Your task to perform on an android device: Is it going to rain tomorrow? Image 0: 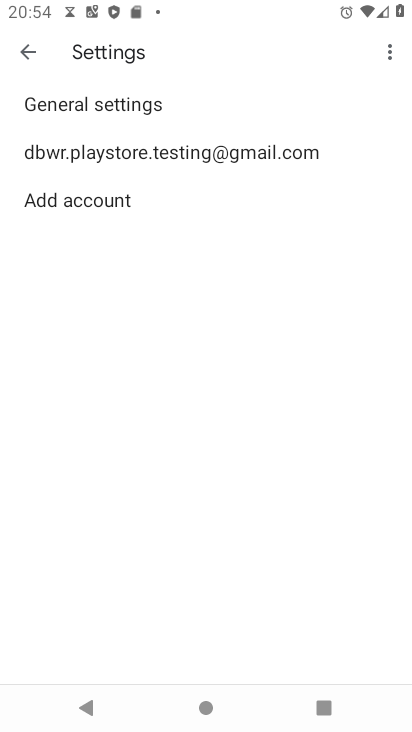
Step 0: press home button
Your task to perform on an android device: Is it going to rain tomorrow? Image 1: 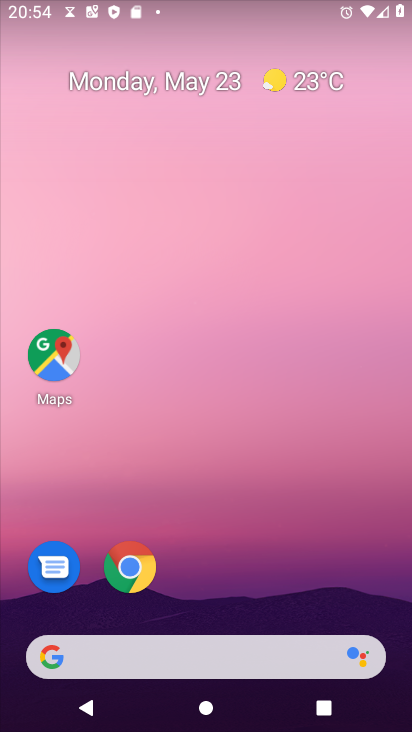
Step 1: click (135, 562)
Your task to perform on an android device: Is it going to rain tomorrow? Image 2: 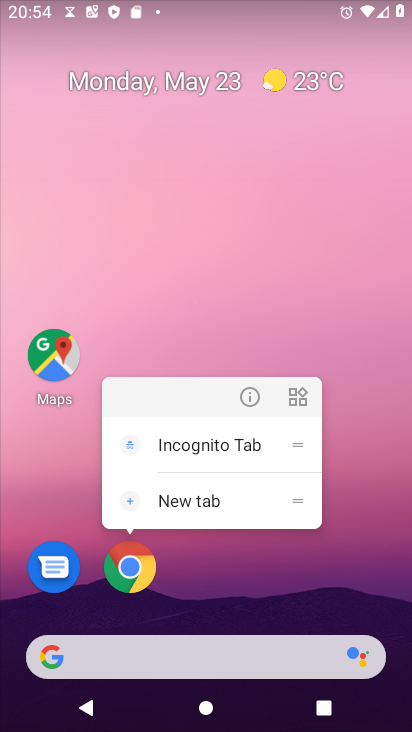
Step 2: click (135, 562)
Your task to perform on an android device: Is it going to rain tomorrow? Image 3: 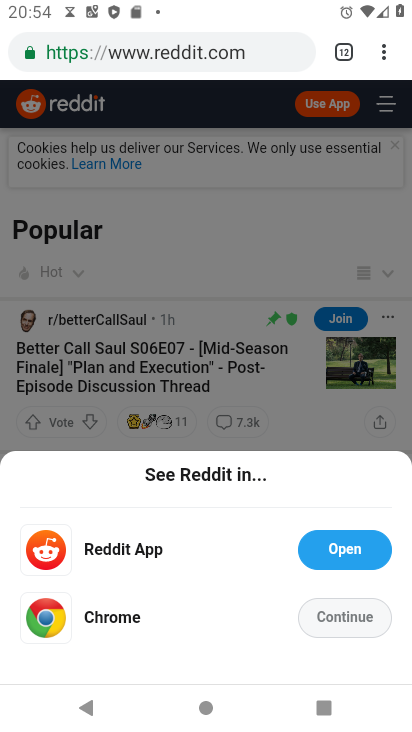
Step 3: click (388, 53)
Your task to perform on an android device: Is it going to rain tomorrow? Image 4: 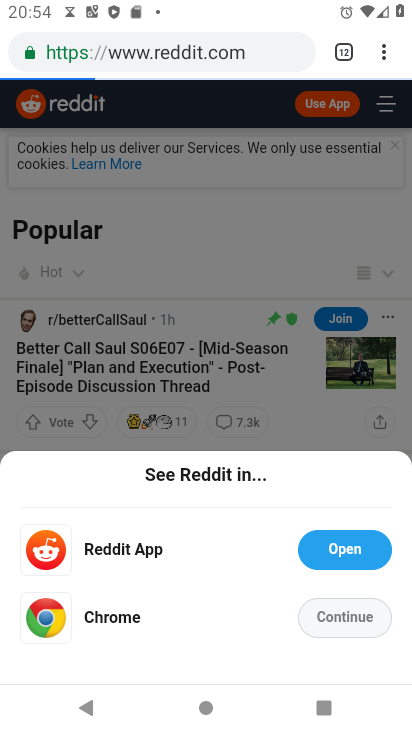
Step 4: click (383, 57)
Your task to perform on an android device: Is it going to rain tomorrow? Image 5: 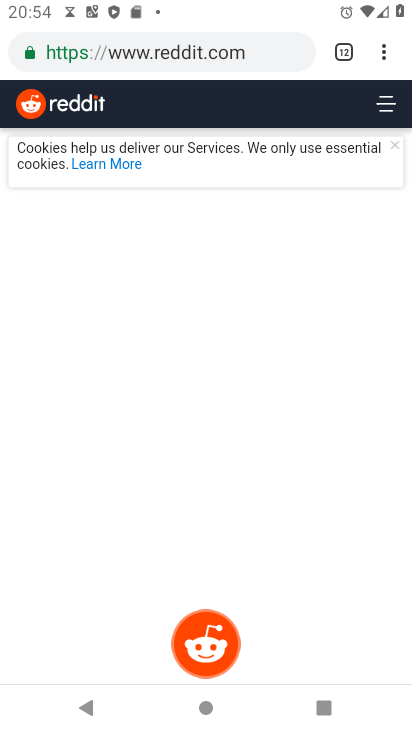
Step 5: click (379, 51)
Your task to perform on an android device: Is it going to rain tomorrow? Image 6: 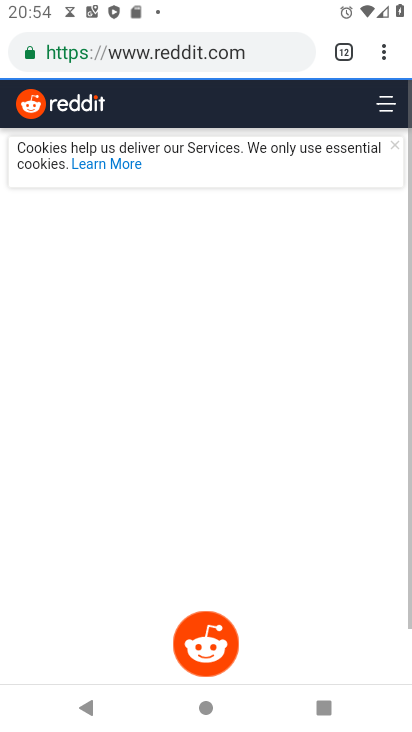
Step 6: click (379, 51)
Your task to perform on an android device: Is it going to rain tomorrow? Image 7: 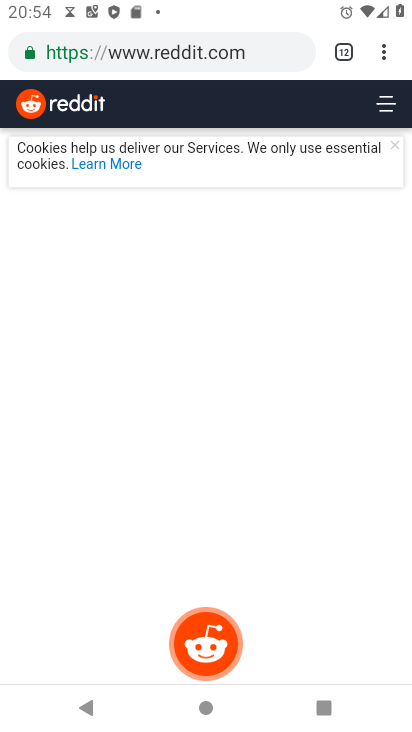
Step 7: click (379, 44)
Your task to perform on an android device: Is it going to rain tomorrow? Image 8: 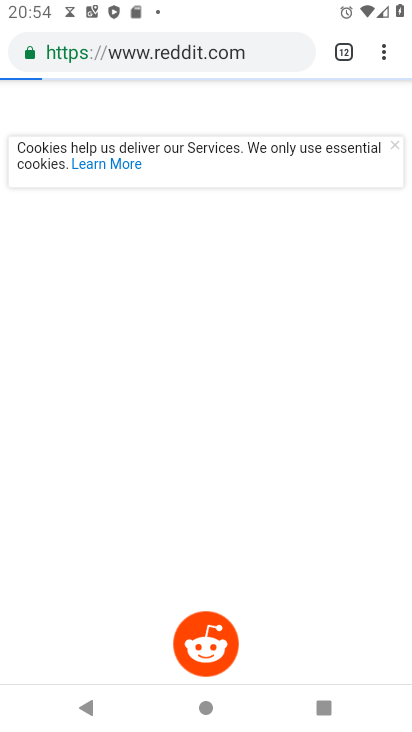
Step 8: click (379, 44)
Your task to perform on an android device: Is it going to rain tomorrow? Image 9: 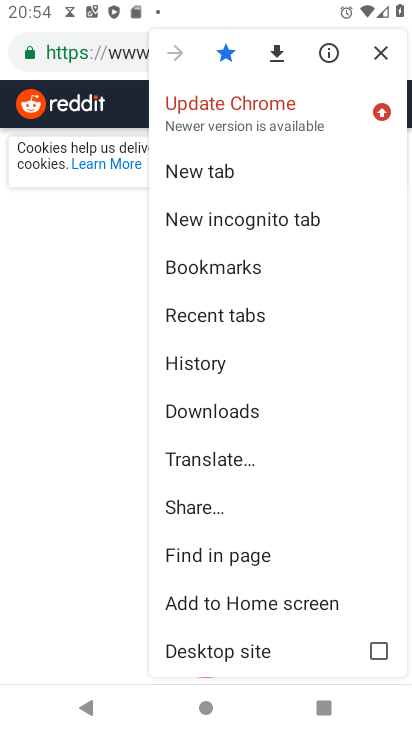
Step 9: click (212, 180)
Your task to perform on an android device: Is it going to rain tomorrow? Image 10: 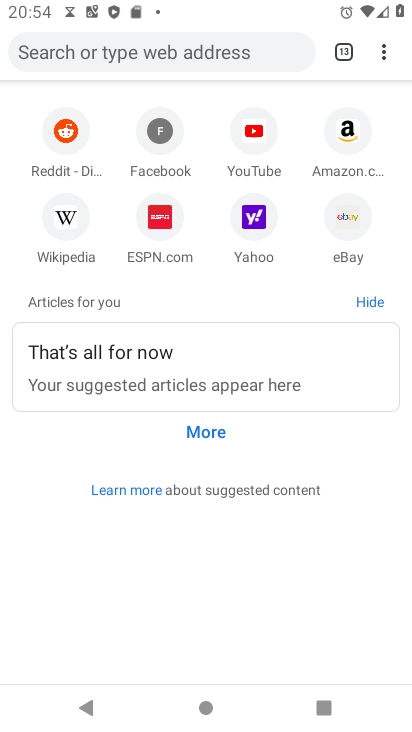
Step 10: click (131, 45)
Your task to perform on an android device: Is it going to rain tomorrow? Image 11: 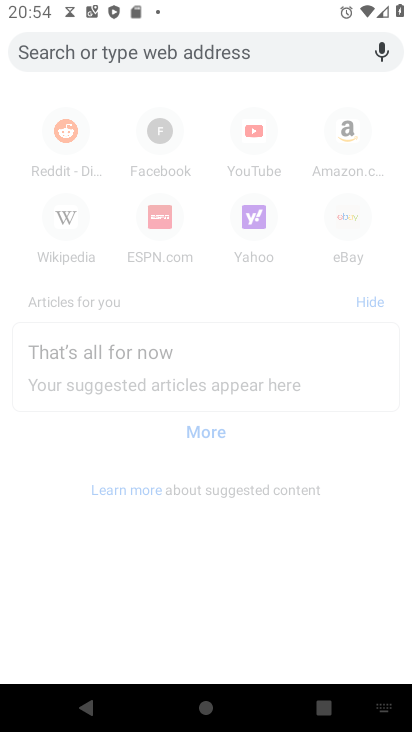
Step 11: type "Is it going to rain tomorrow?"
Your task to perform on an android device: Is it going to rain tomorrow? Image 12: 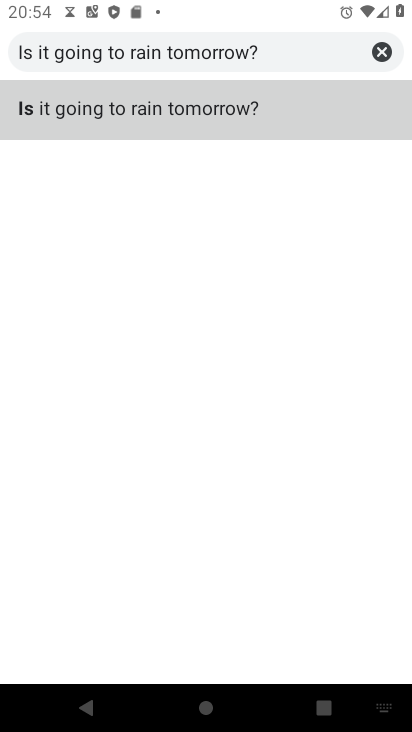
Step 12: click (323, 97)
Your task to perform on an android device: Is it going to rain tomorrow? Image 13: 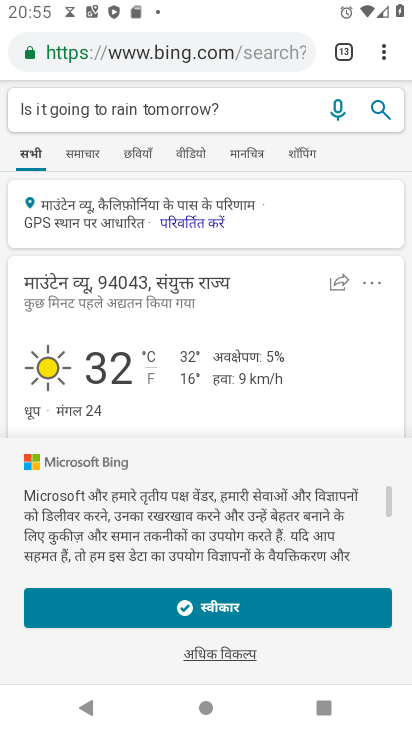
Step 13: task complete